Your task to perform on an android device: turn on the 12-hour format for clock Image 0: 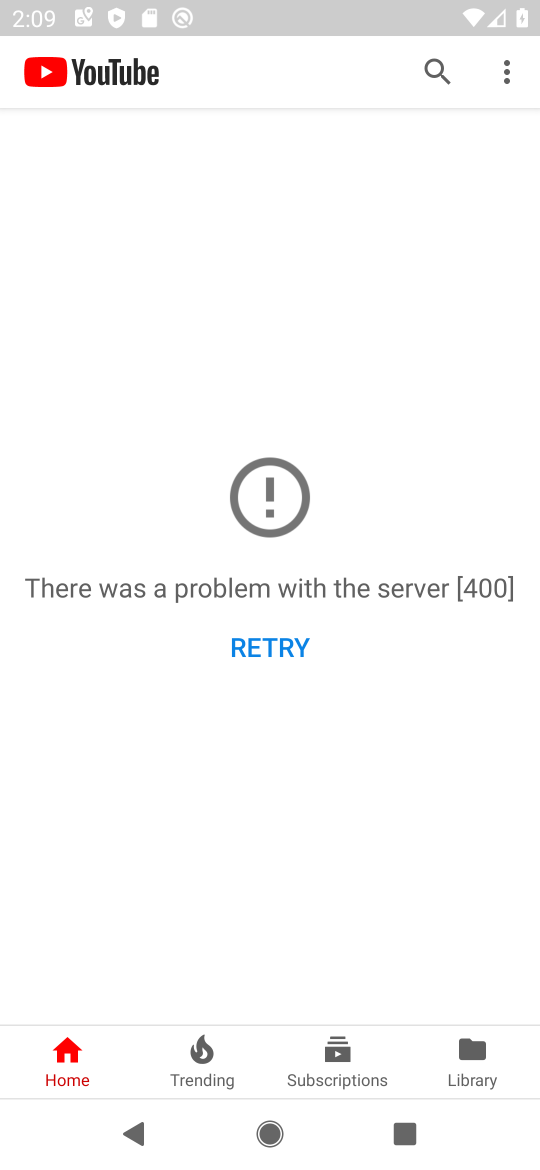
Step 0: press home button
Your task to perform on an android device: turn on the 12-hour format for clock Image 1: 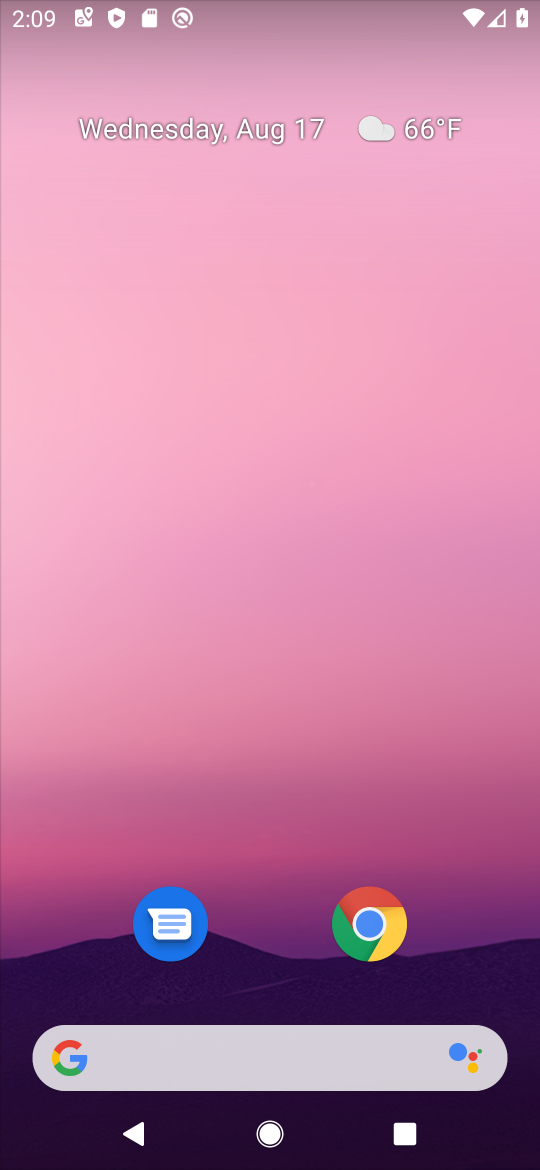
Step 1: drag from (274, 1067) to (302, 135)
Your task to perform on an android device: turn on the 12-hour format for clock Image 2: 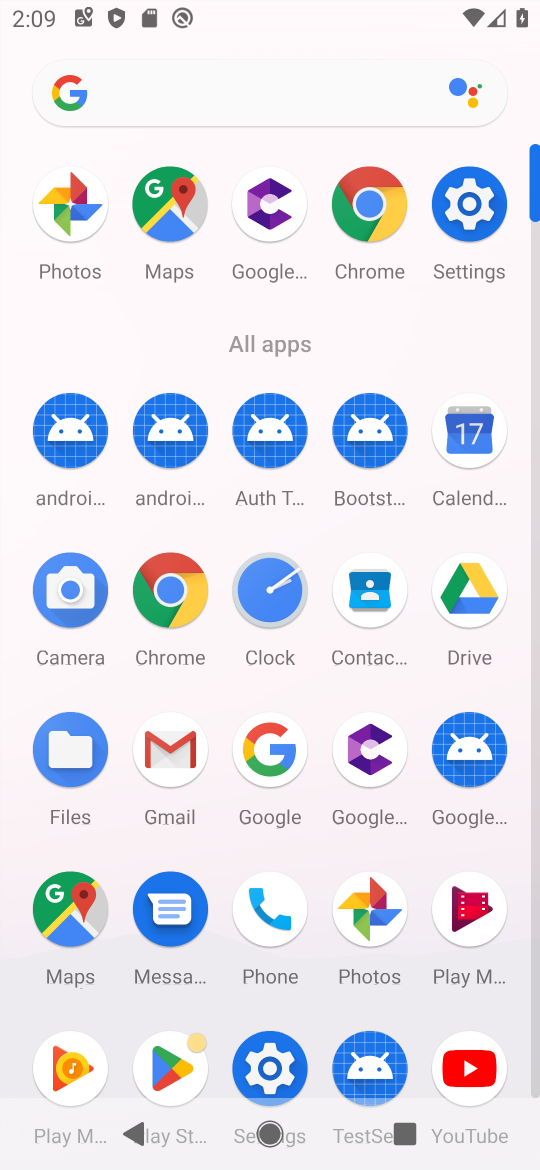
Step 2: click (269, 592)
Your task to perform on an android device: turn on the 12-hour format for clock Image 3: 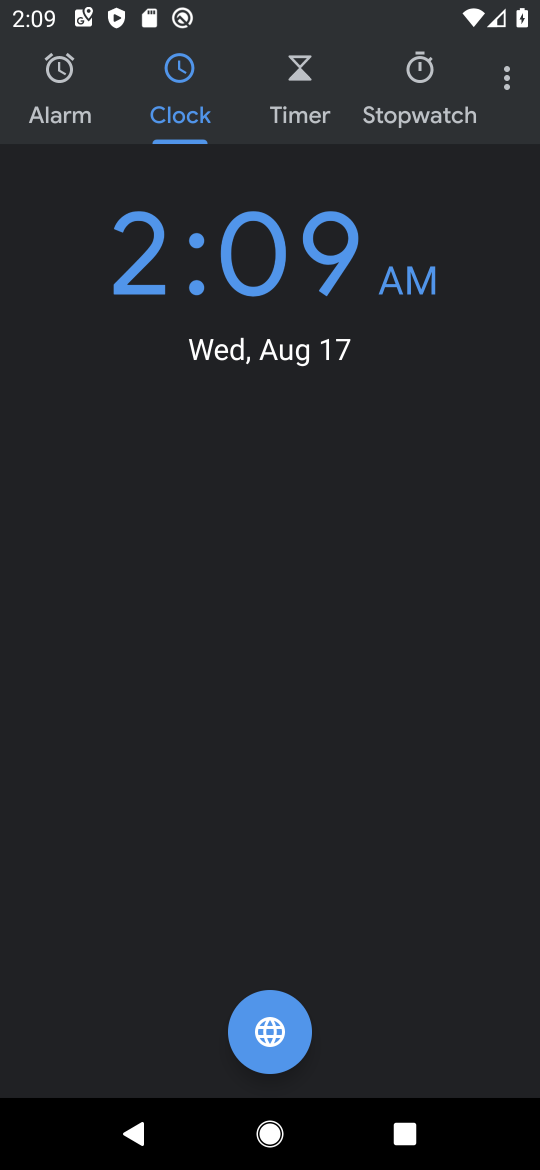
Step 3: click (510, 82)
Your task to perform on an android device: turn on the 12-hour format for clock Image 4: 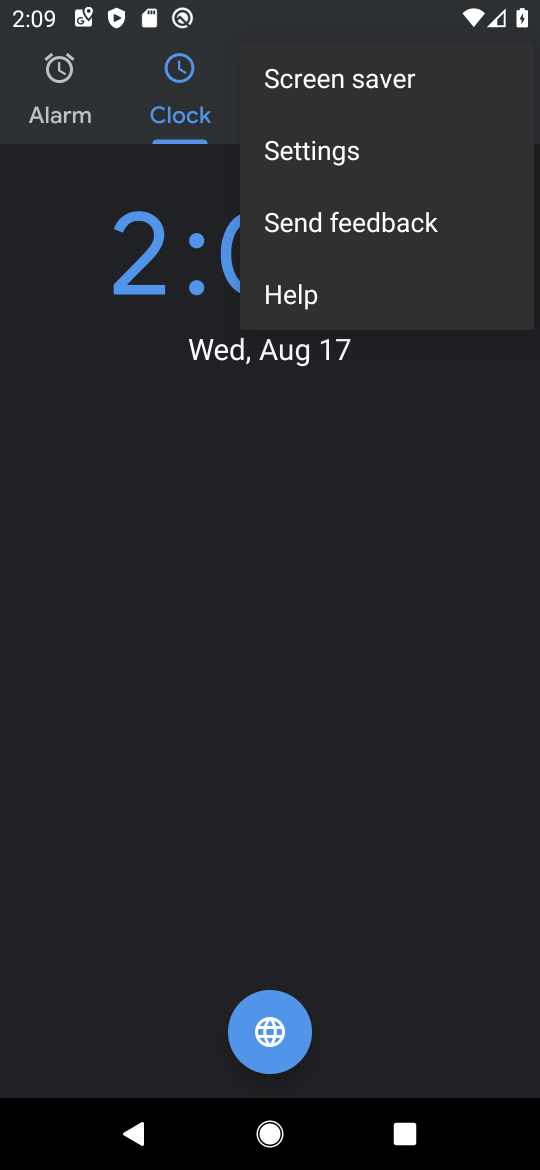
Step 4: click (360, 152)
Your task to perform on an android device: turn on the 12-hour format for clock Image 5: 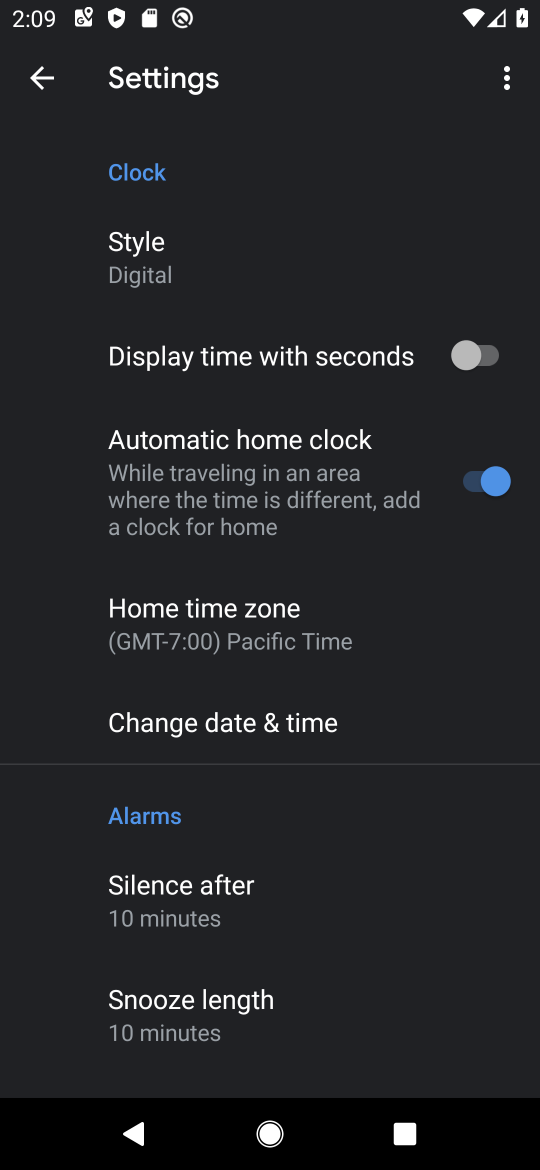
Step 5: click (274, 722)
Your task to perform on an android device: turn on the 12-hour format for clock Image 6: 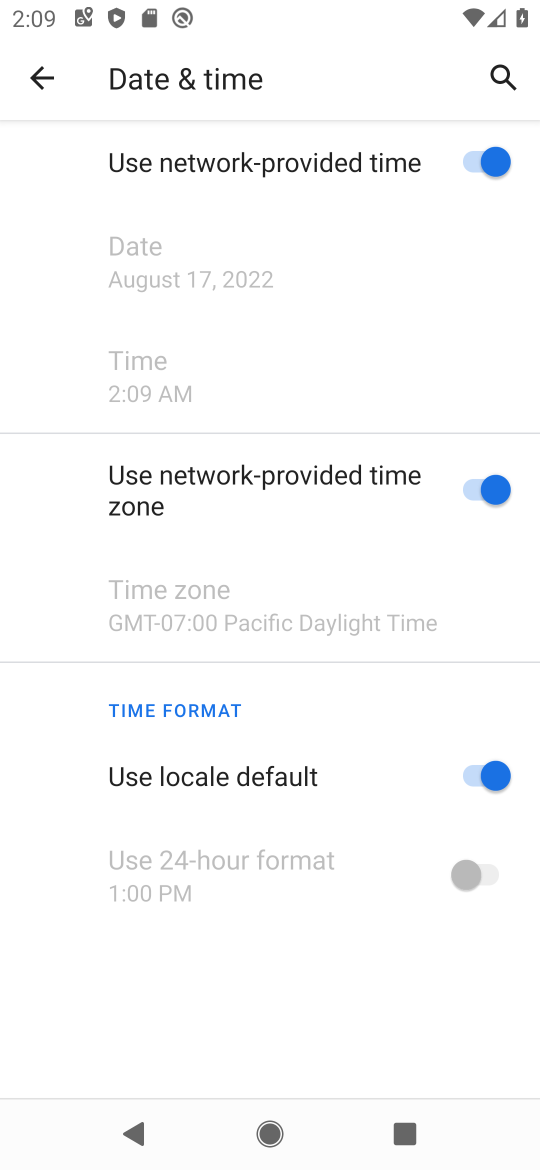
Step 6: task complete